Your task to perform on an android device: install app "VLC for Android" Image 0: 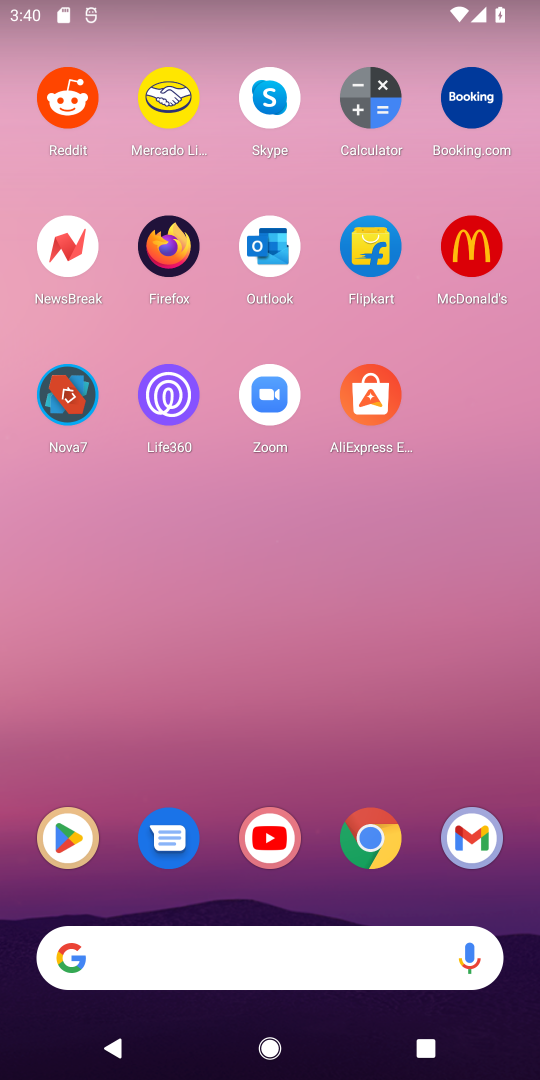
Step 0: click (74, 840)
Your task to perform on an android device: install app "VLC for Android" Image 1: 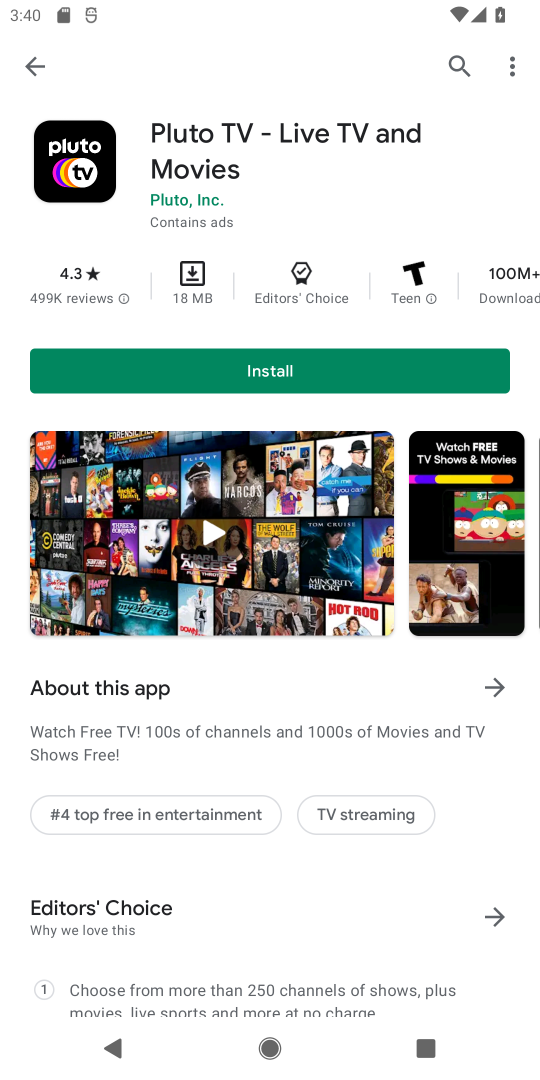
Step 1: click (448, 70)
Your task to perform on an android device: install app "VLC for Android" Image 2: 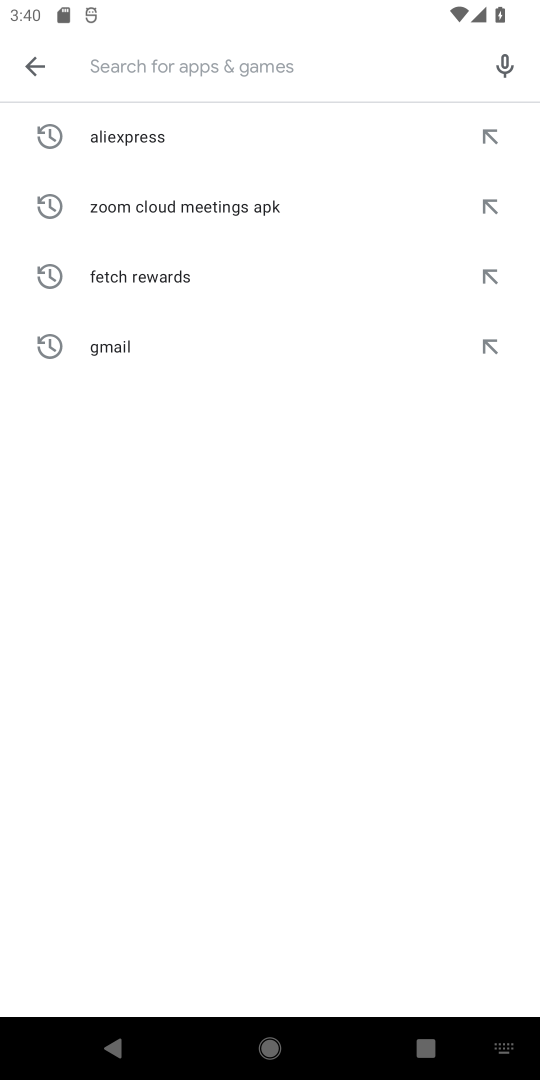
Step 2: type "VLC for Android"
Your task to perform on an android device: install app "VLC for Android" Image 3: 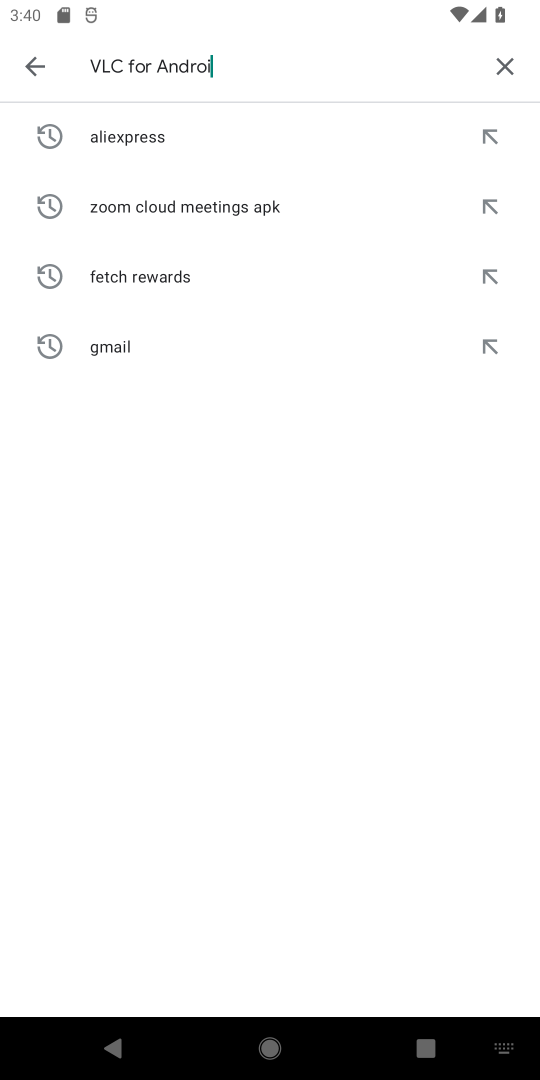
Step 3: type ""
Your task to perform on an android device: install app "VLC for Android" Image 4: 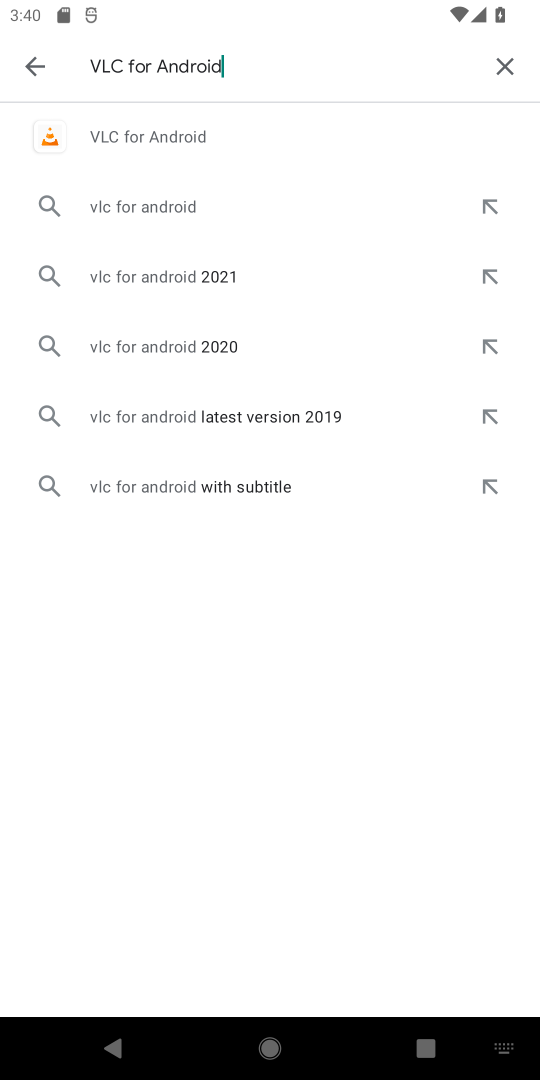
Step 4: click (120, 132)
Your task to perform on an android device: install app "VLC for Android" Image 5: 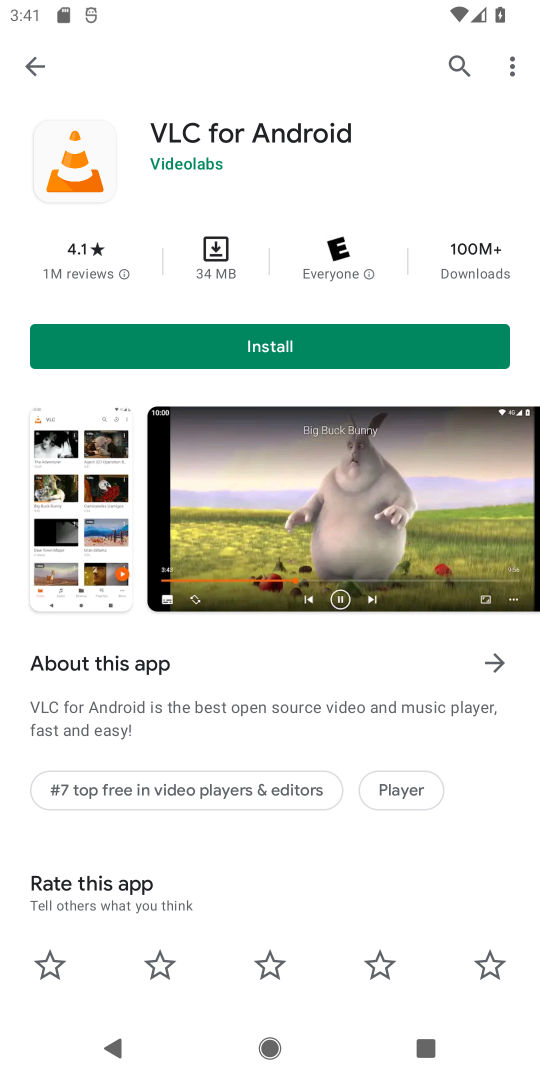
Step 5: click (345, 343)
Your task to perform on an android device: install app "VLC for Android" Image 6: 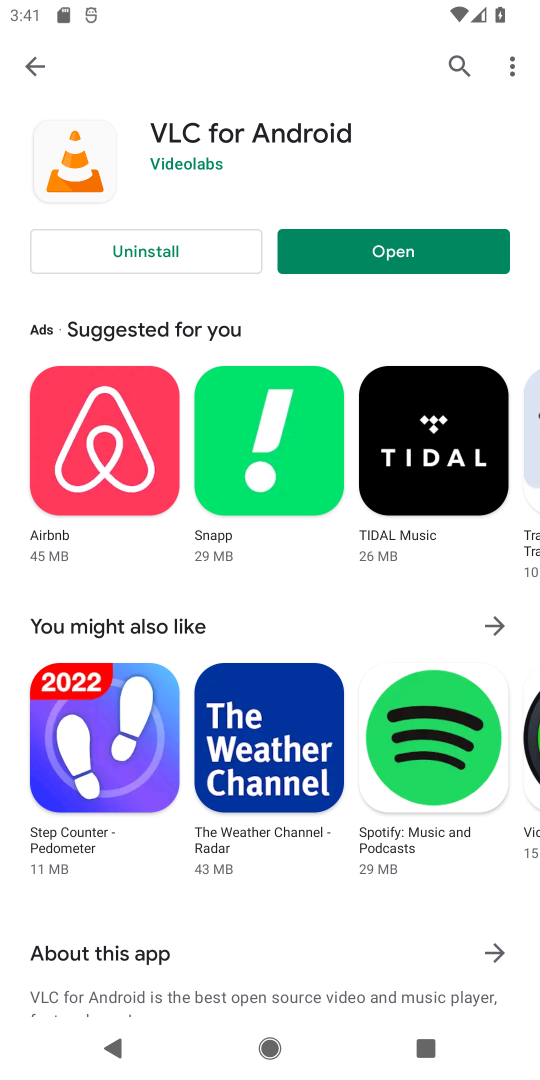
Step 6: task complete